Your task to perform on an android device: open device folders in google photos Image 0: 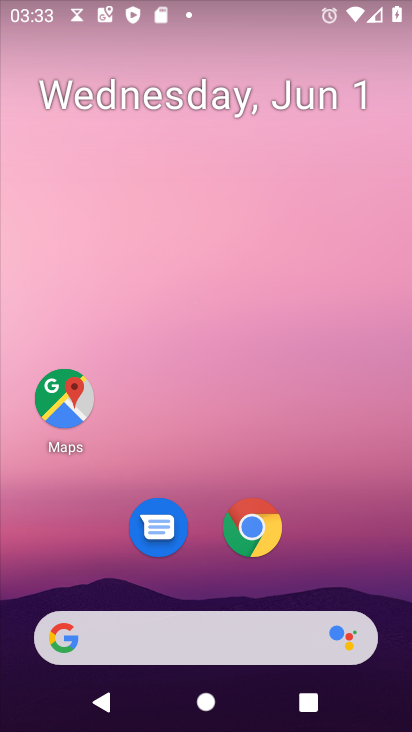
Step 0: drag from (330, 539) to (307, 103)
Your task to perform on an android device: open device folders in google photos Image 1: 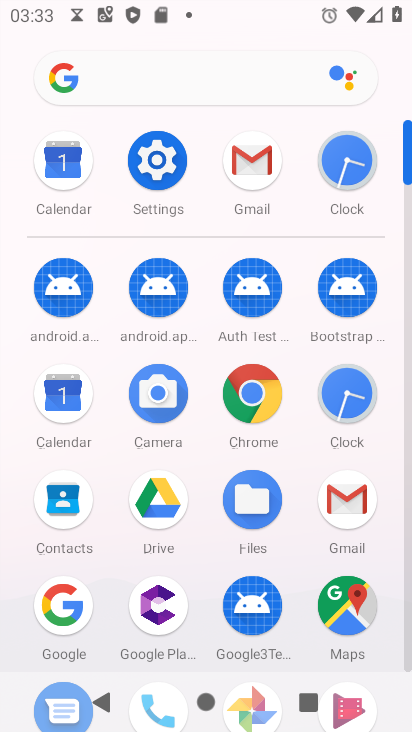
Step 1: drag from (291, 578) to (261, 345)
Your task to perform on an android device: open device folders in google photos Image 2: 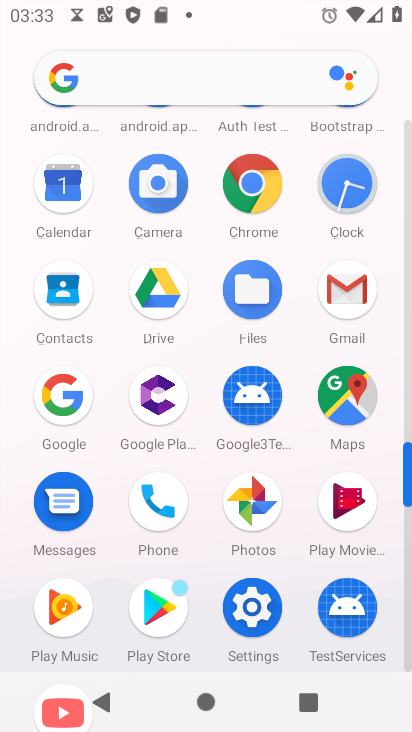
Step 2: click (252, 498)
Your task to perform on an android device: open device folders in google photos Image 3: 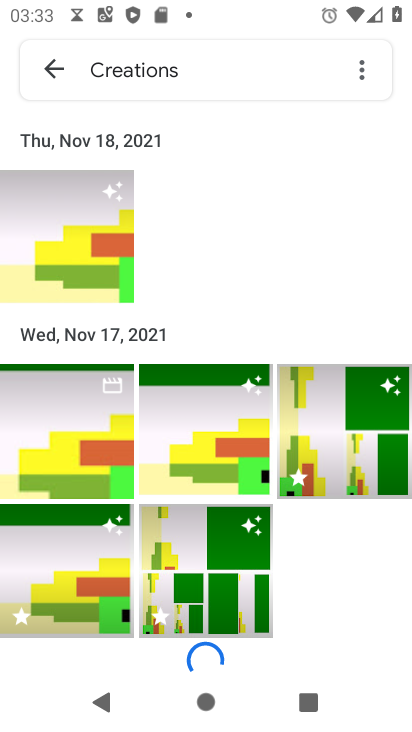
Step 3: click (54, 71)
Your task to perform on an android device: open device folders in google photos Image 4: 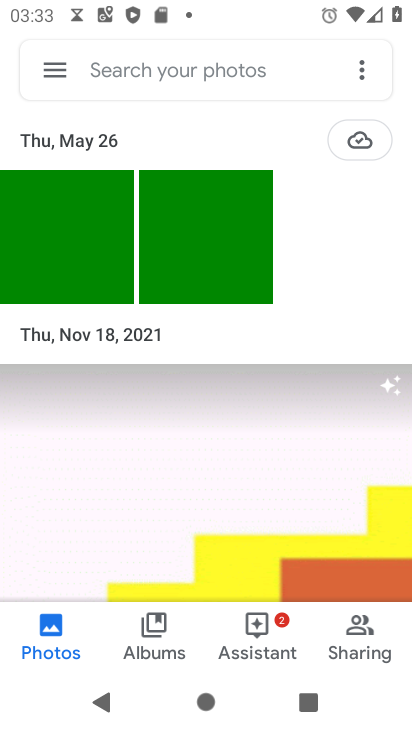
Step 4: click (54, 71)
Your task to perform on an android device: open device folders in google photos Image 5: 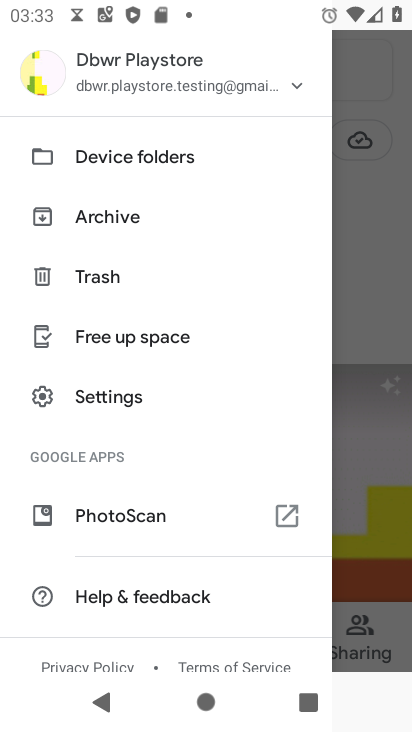
Step 5: click (105, 160)
Your task to perform on an android device: open device folders in google photos Image 6: 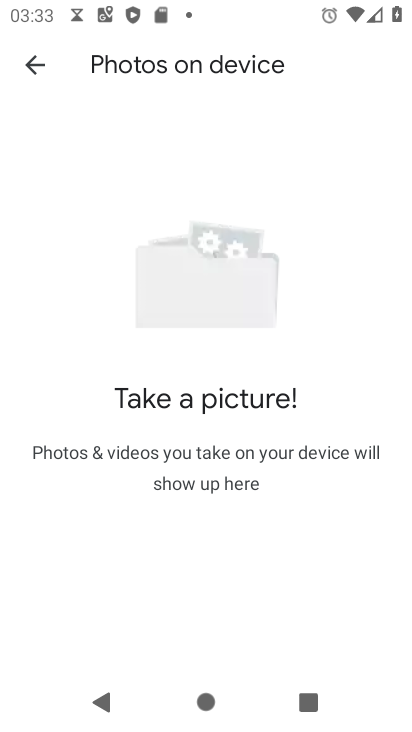
Step 6: task complete